Your task to perform on an android device: Go to wifi settings Image 0: 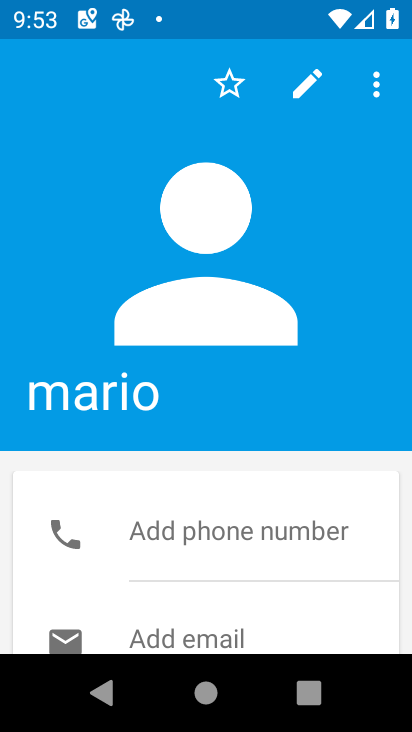
Step 0: press home button
Your task to perform on an android device: Go to wifi settings Image 1: 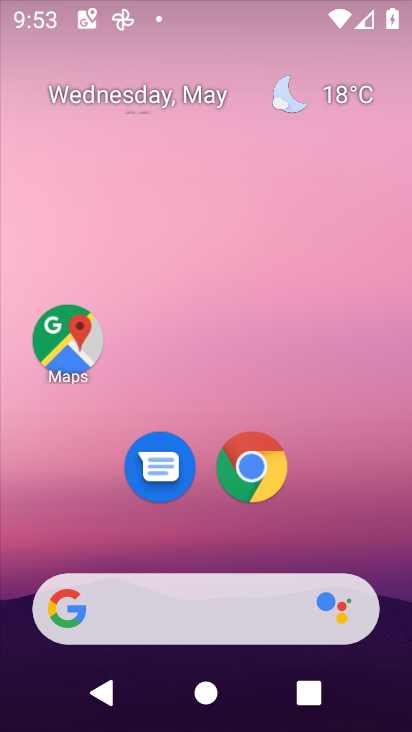
Step 1: drag from (266, 406) to (274, 74)
Your task to perform on an android device: Go to wifi settings Image 2: 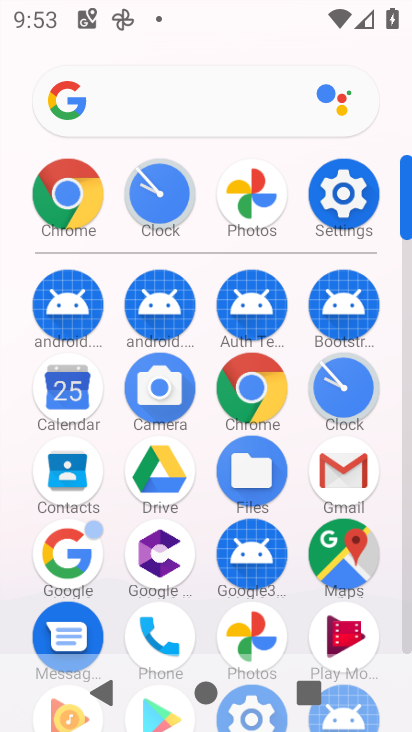
Step 2: click (344, 182)
Your task to perform on an android device: Go to wifi settings Image 3: 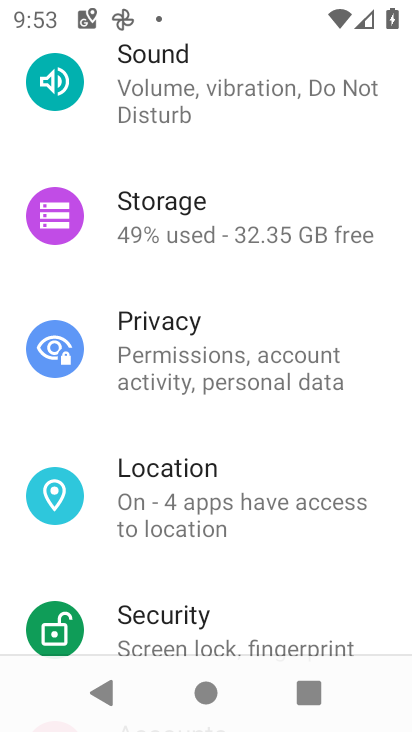
Step 3: drag from (248, 121) to (137, 545)
Your task to perform on an android device: Go to wifi settings Image 4: 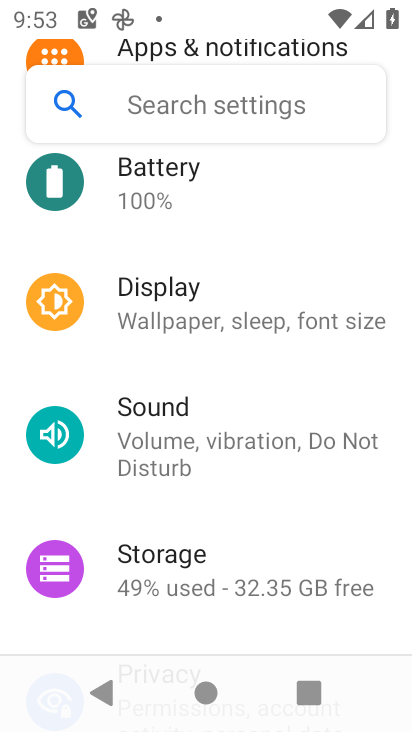
Step 4: drag from (188, 256) to (97, 585)
Your task to perform on an android device: Go to wifi settings Image 5: 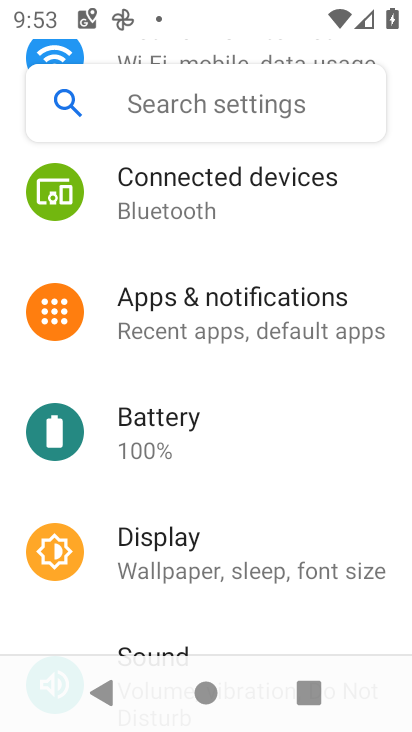
Step 5: drag from (204, 203) to (95, 517)
Your task to perform on an android device: Go to wifi settings Image 6: 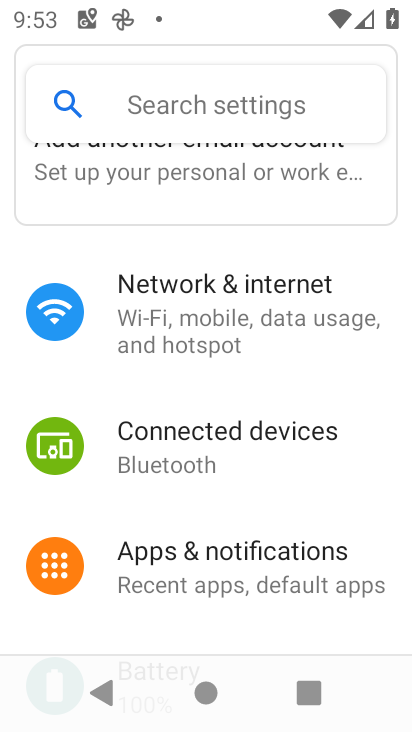
Step 6: click (159, 279)
Your task to perform on an android device: Go to wifi settings Image 7: 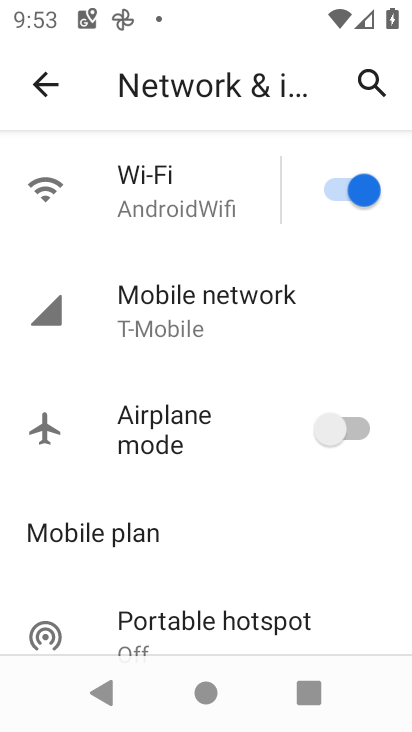
Step 7: click (229, 175)
Your task to perform on an android device: Go to wifi settings Image 8: 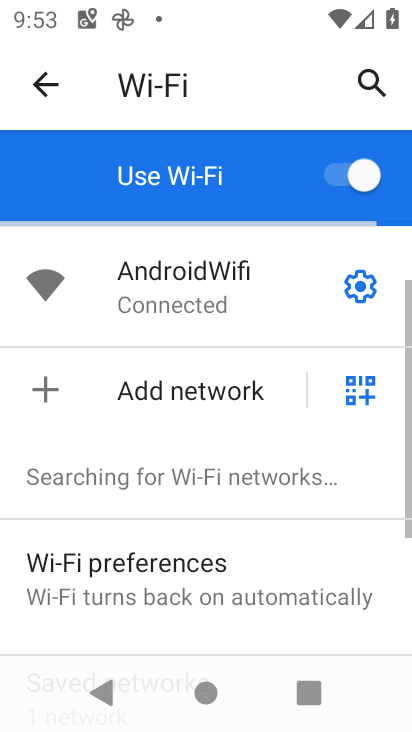
Step 8: click (353, 275)
Your task to perform on an android device: Go to wifi settings Image 9: 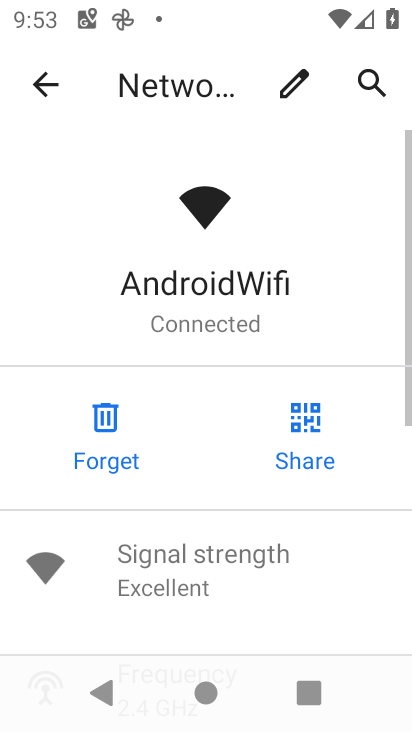
Step 9: task complete